Your task to perform on an android device: change alarm snooze length Image 0: 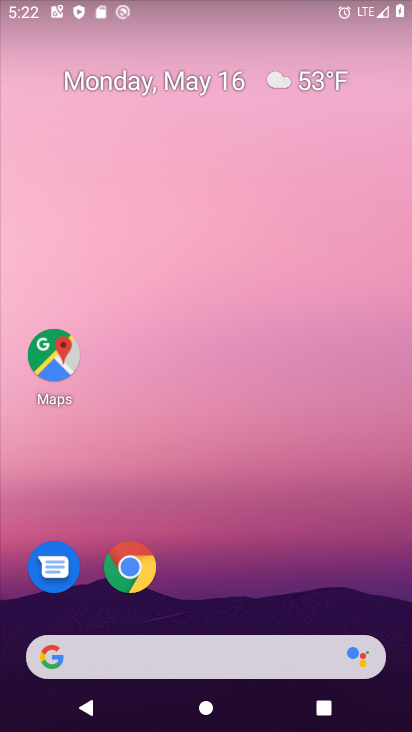
Step 0: drag from (282, 644) to (279, 6)
Your task to perform on an android device: change alarm snooze length Image 1: 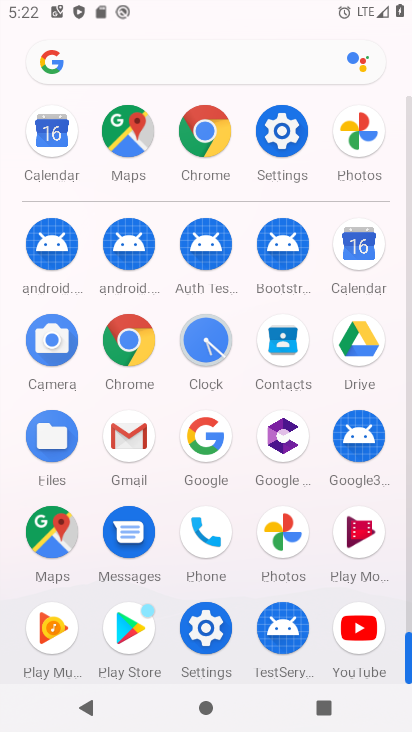
Step 1: click (190, 345)
Your task to perform on an android device: change alarm snooze length Image 2: 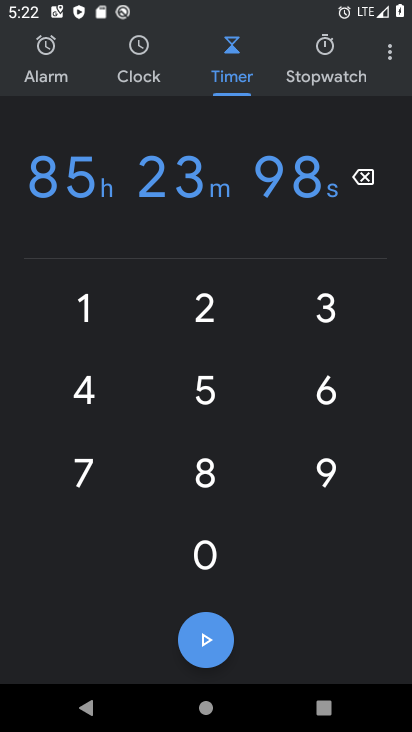
Step 2: press home button
Your task to perform on an android device: change alarm snooze length Image 3: 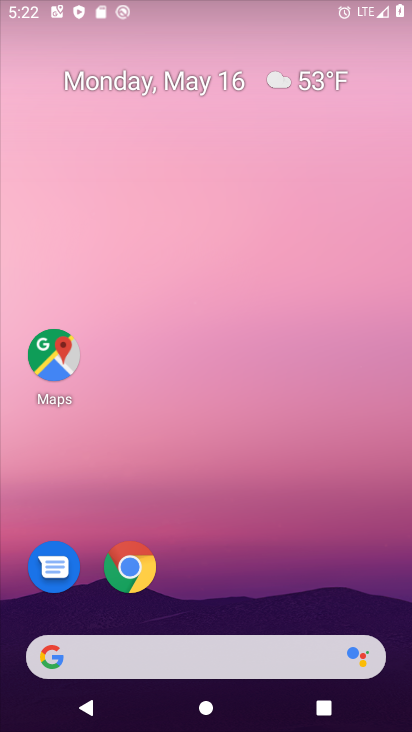
Step 3: drag from (246, 660) to (268, 38)
Your task to perform on an android device: change alarm snooze length Image 4: 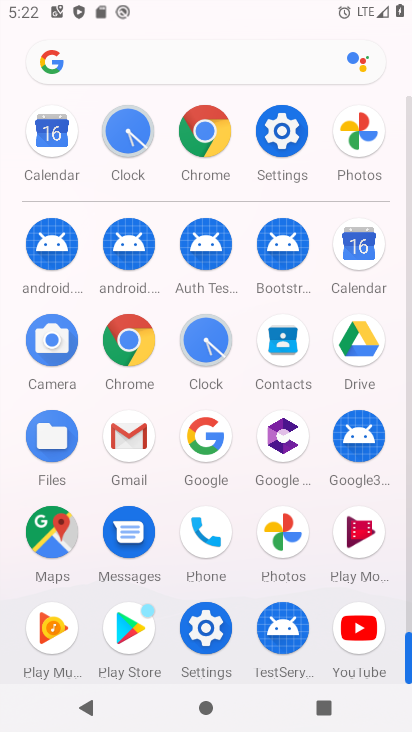
Step 4: click (175, 359)
Your task to perform on an android device: change alarm snooze length Image 5: 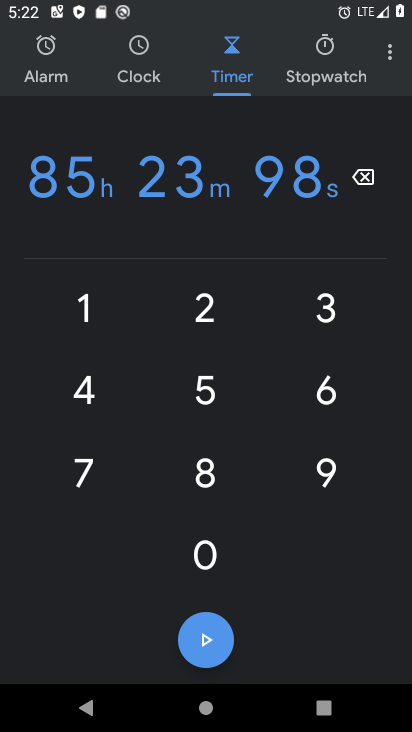
Step 5: click (392, 54)
Your task to perform on an android device: change alarm snooze length Image 6: 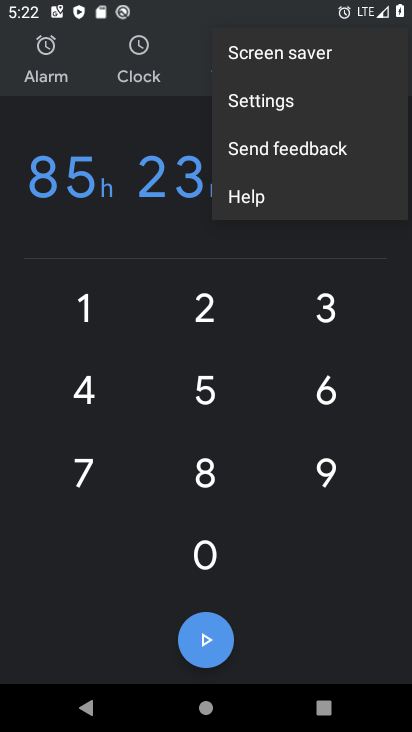
Step 6: click (294, 109)
Your task to perform on an android device: change alarm snooze length Image 7: 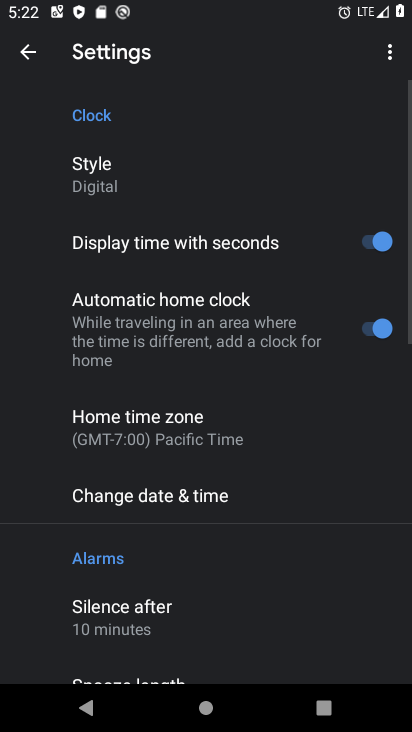
Step 7: drag from (261, 657) to (224, 116)
Your task to perform on an android device: change alarm snooze length Image 8: 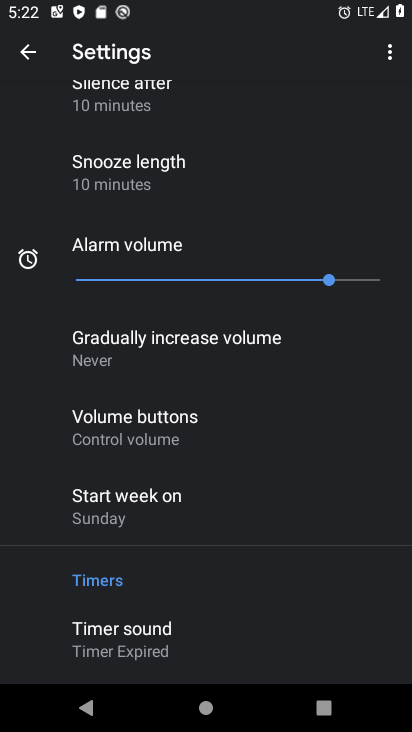
Step 8: drag from (181, 267) to (211, 501)
Your task to perform on an android device: change alarm snooze length Image 9: 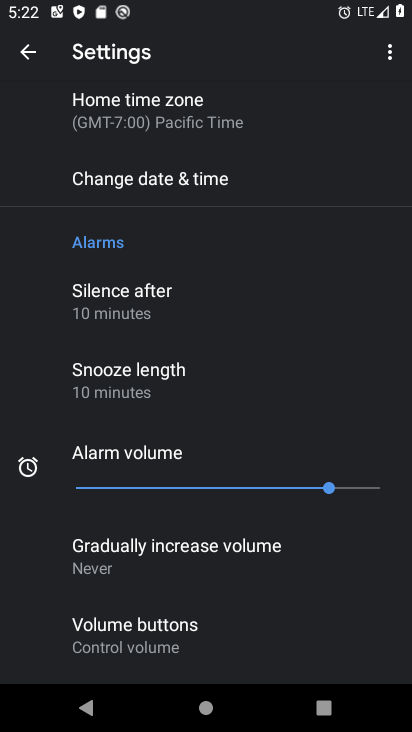
Step 9: click (151, 393)
Your task to perform on an android device: change alarm snooze length Image 10: 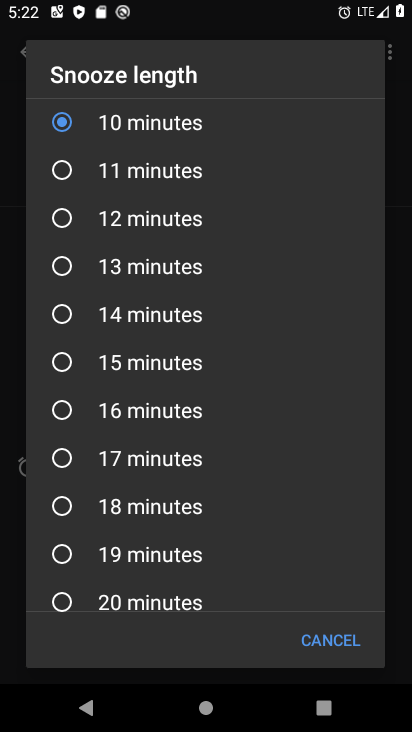
Step 10: click (69, 171)
Your task to perform on an android device: change alarm snooze length Image 11: 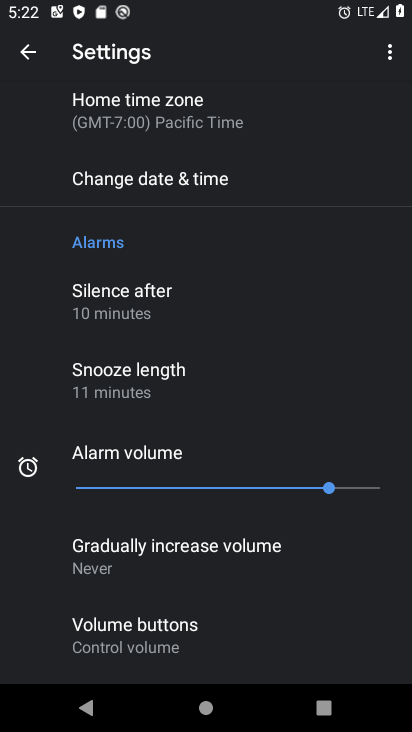
Step 11: task complete